Your task to perform on an android device: When is my next meeting? Image 0: 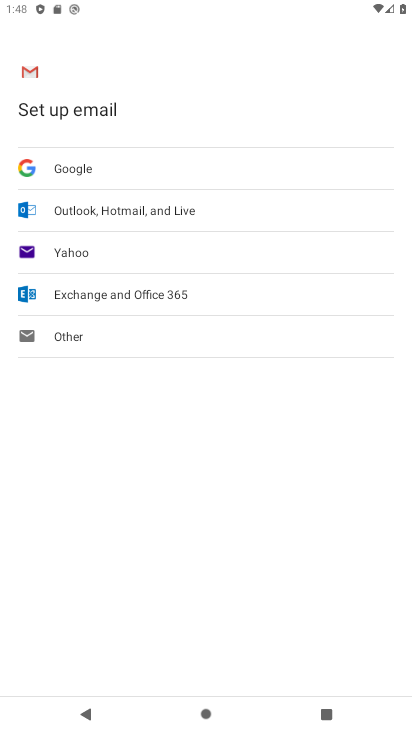
Step 0: press home button
Your task to perform on an android device: When is my next meeting? Image 1: 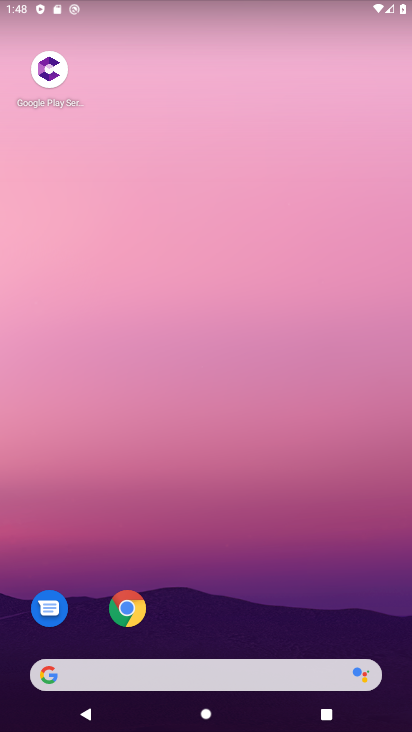
Step 1: drag from (294, 518) to (347, 156)
Your task to perform on an android device: When is my next meeting? Image 2: 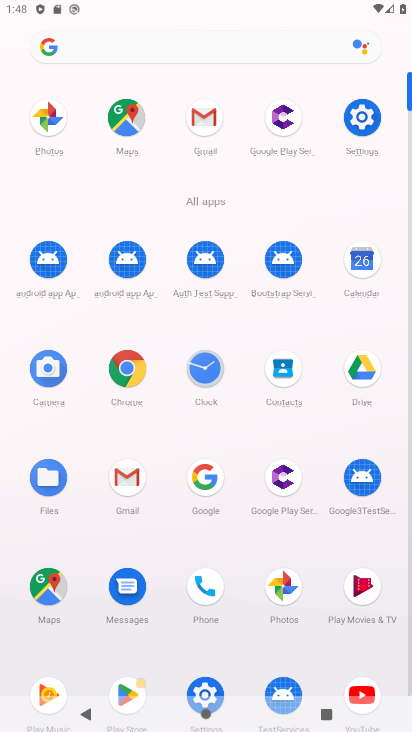
Step 2: click (354, 256)
Your task to perform on an android device: When is my next meeting? Image 3: 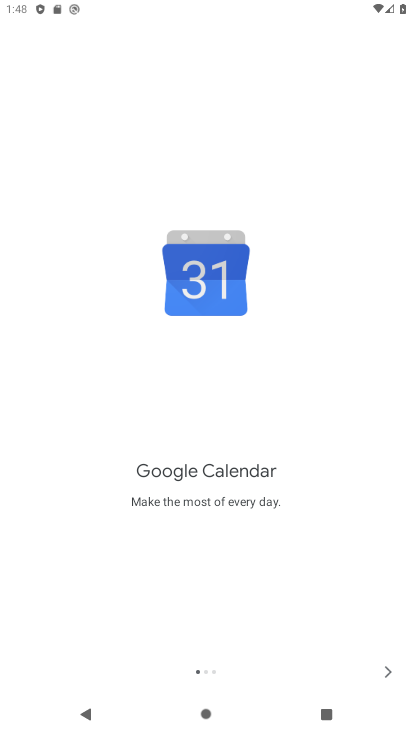
Step 3: click (388, 673)
Your task to perform on an android device: When is my next meeting? Image 4: 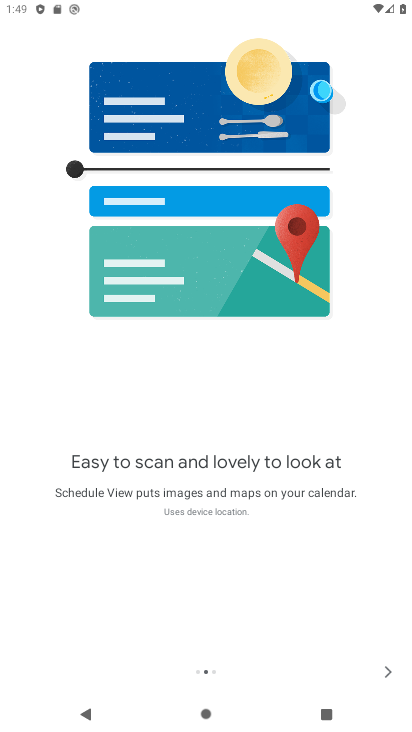
Step 4: click (388, 673)
Your task to perform on an android device: When is my next meeting? Image 5: 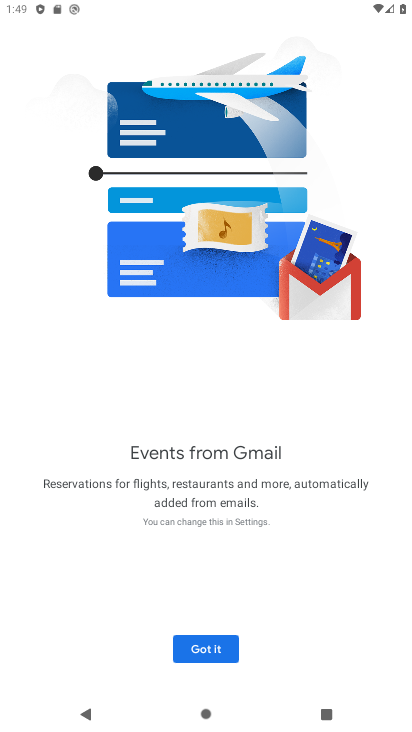
Step 5: click (388, 673)
Your task to perform on an android device: When is my next meeting? Image 6: 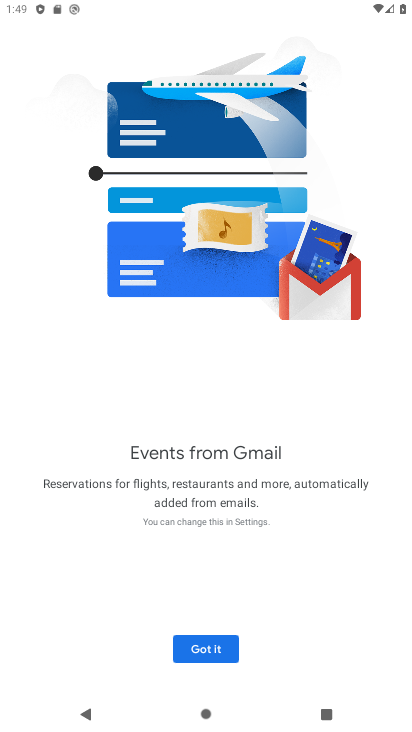
Step 6: click (201, 650)
Your task to perform on an android device: When is my next meeting? Image 7: 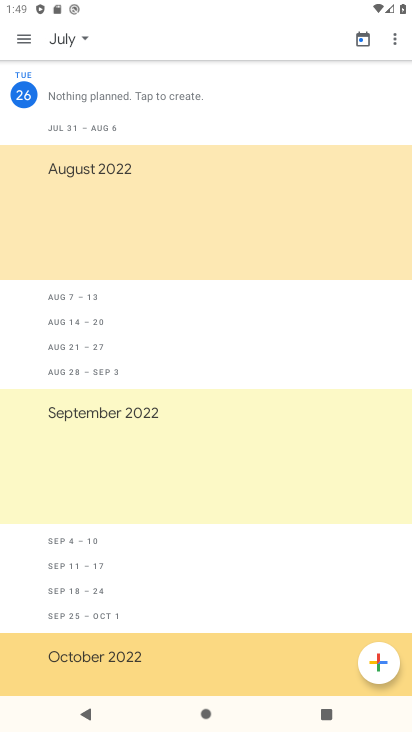
Step 7: task complete